Your task to perform on an android device: turn on sleep mode Image 0: 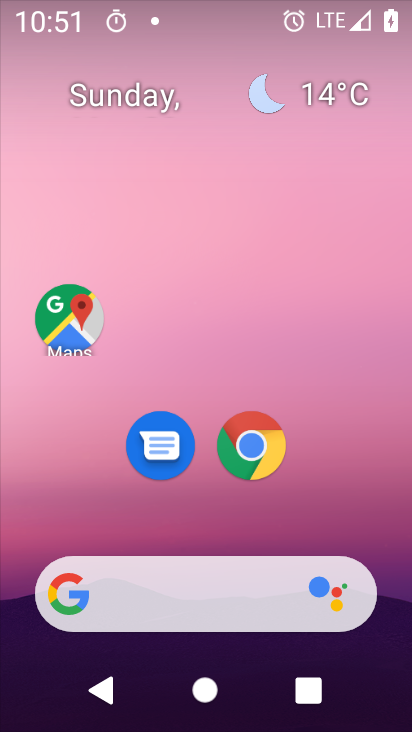
Step 0: drag from (408, 255) to (251, 208)
Your task to perform on an android device: turn on sleep mode Image 1: 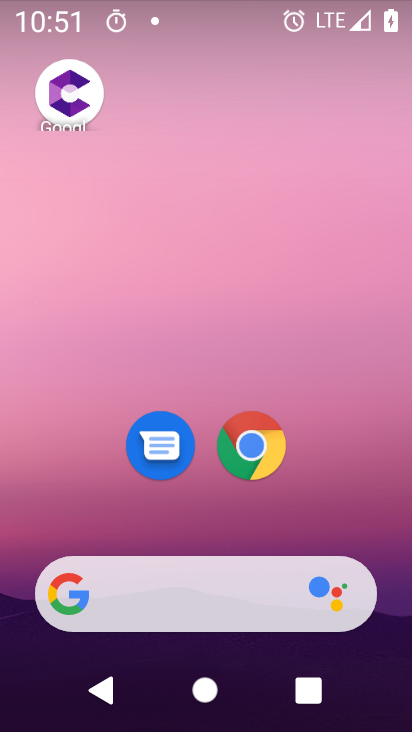
Step 1: drag from (209, 515) to (216, 116)
Your task to perform on an android device: turn on sleep mode Image 2: 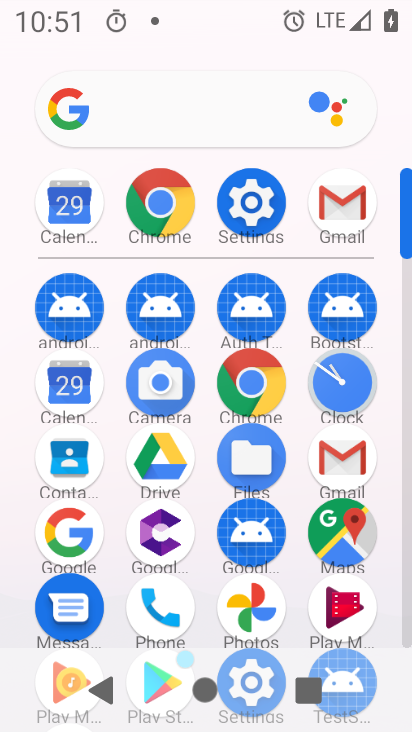
Step 2: click (255, 191)
Your task to perform on an android device: turn on sleep mode Image 3: 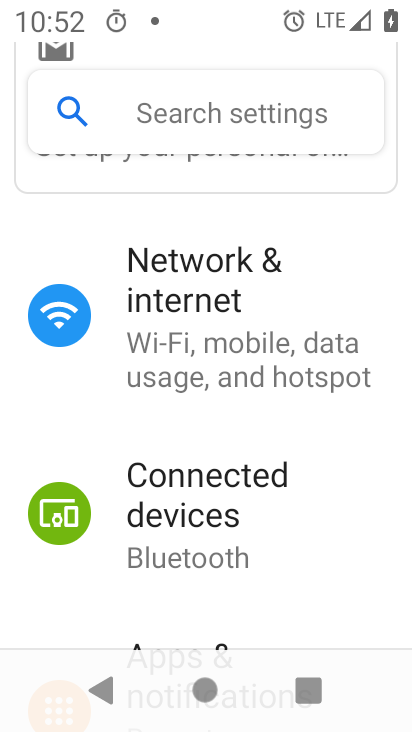
Step 3: drag from (260, 423) to (292, 199)
Your task to perform on an android device: turn on sleep mode Image 4: 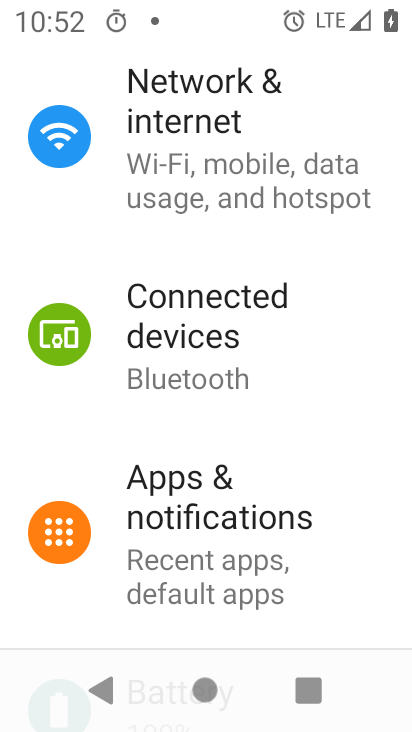
Step 4: click (205, 506)
Your task to perform on an android device: turn on sleep mode Image 5: 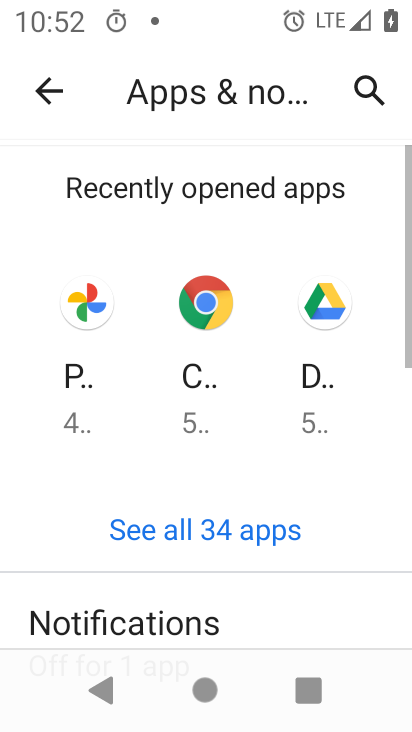
Step 5: click (37, 87)
Your task to perform on an android device: turn on sleep mode Image 6: 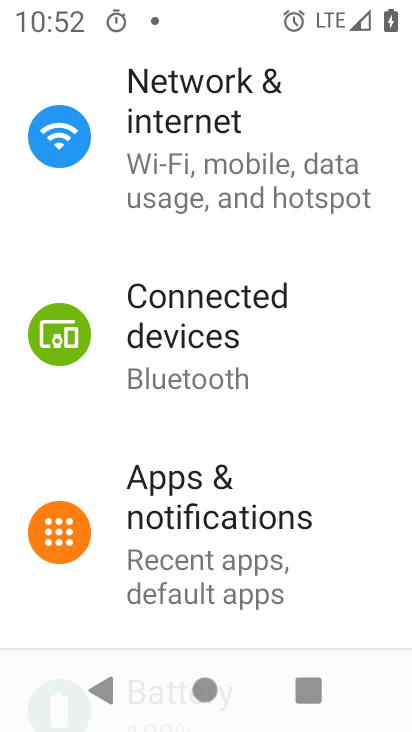
Step 6: drag from (228, 511) to (275, 205)
Your task to perform on an android device: turn on sleep mode Image 7: 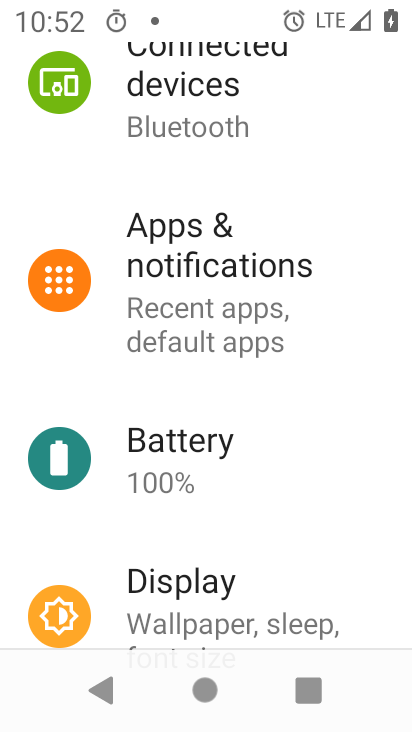
Step 7: click (224, 604)
Your task to perform on an android device: turn on sleep mode Image 8: 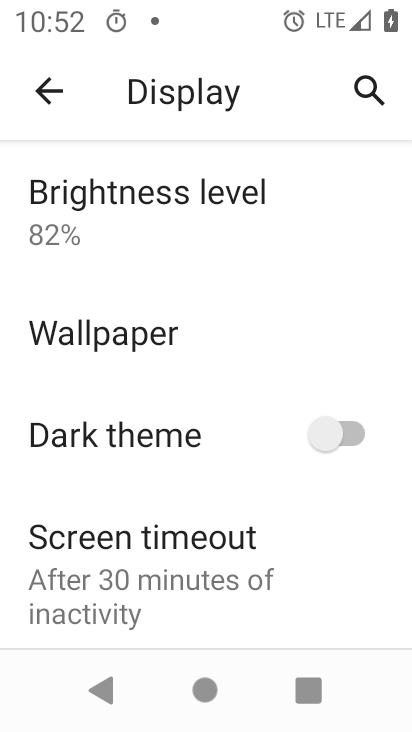
Step 8: click (184, 600)
Your task to perform on an android device: turn on sleep mode Image 9: 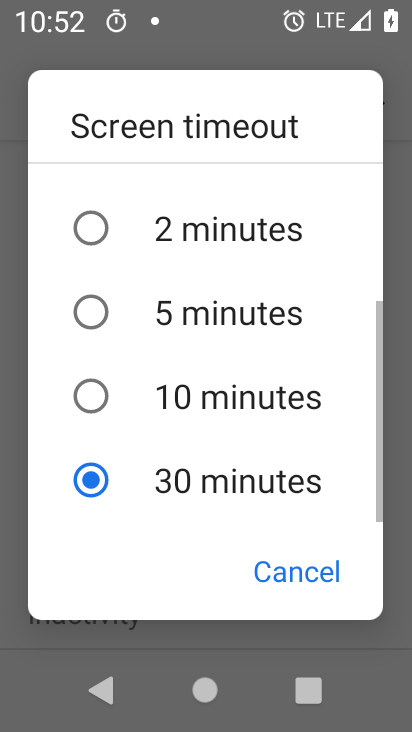
Step 9: task complete